Your task to perform on an android device: What's on my calendar tomorrow? Image 0: 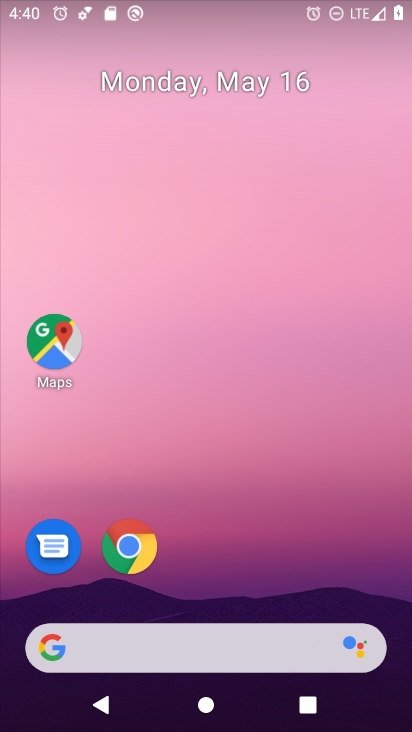
Step 0: drag from (296, 567) to (295, 166)
Your task to perform on an android device: What's on my calendar tomorrow? Image 1: 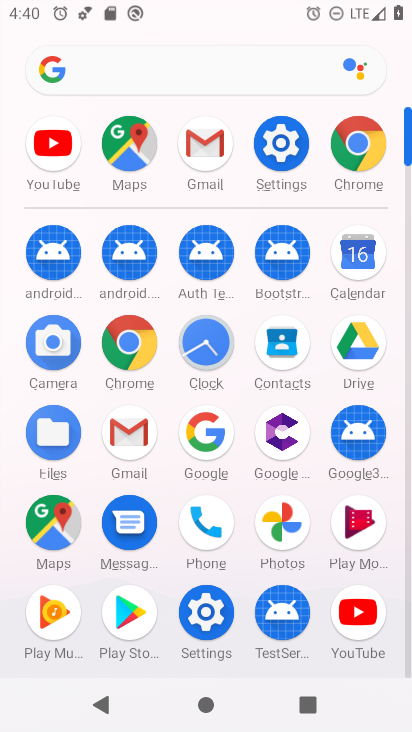
Step 1: click (363, 266)
Your task to perform on an android device: What's on my calendar tomorrow? Image 2: 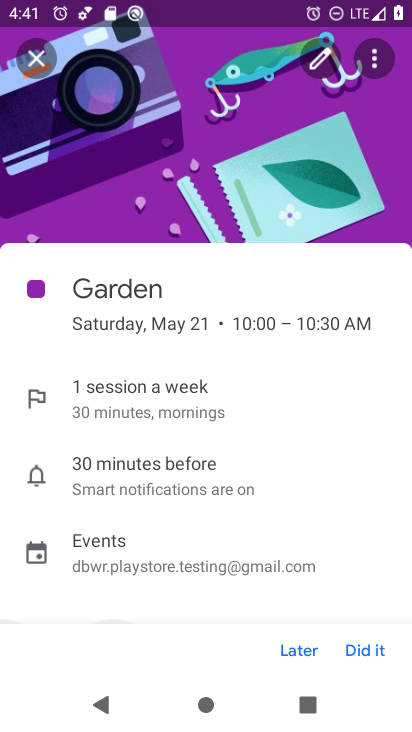
Step 2: click (29, 59)
Your task to perform on an android device: What's on my calendar tomorrow? Image 3: 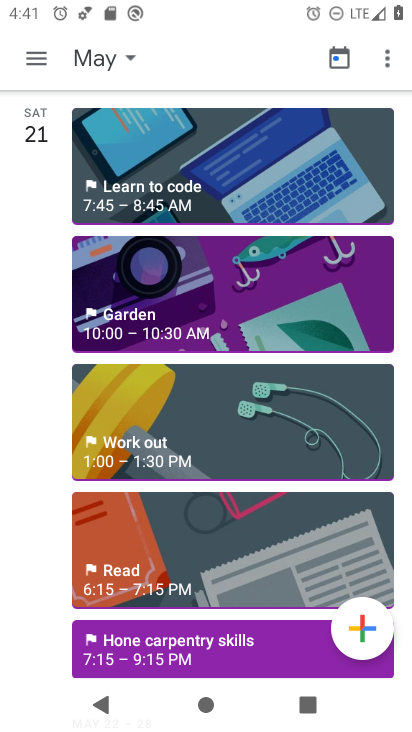
Step 3: click (136, 59)
Your task to perform on an android device: What's on my calendar tomorrow? Image 4: 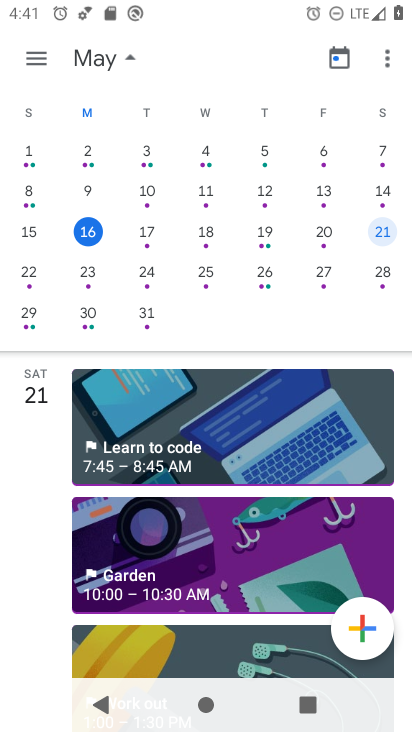
Step 4: click (155, 235)
Your task to perform on an android device: What's on my calendar tomorrow? Image 5: 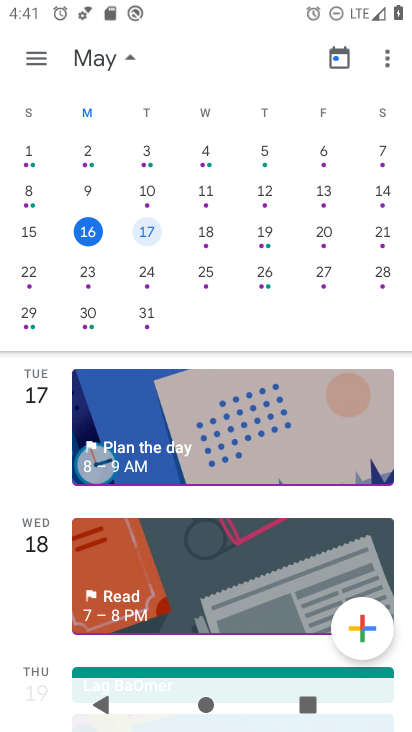
Step 5: task complete